Your task to perform on an android device: Do I have any events tomorrow? Image 0: 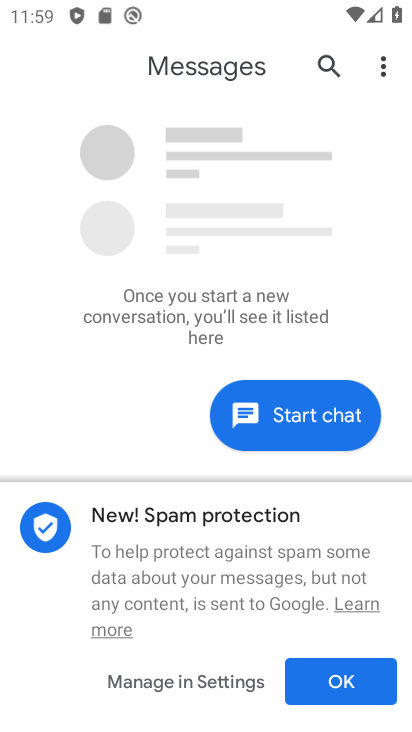
Step 0: press home button
Your task to perform on an android device: Do I have any events tomorrow? Image 1: 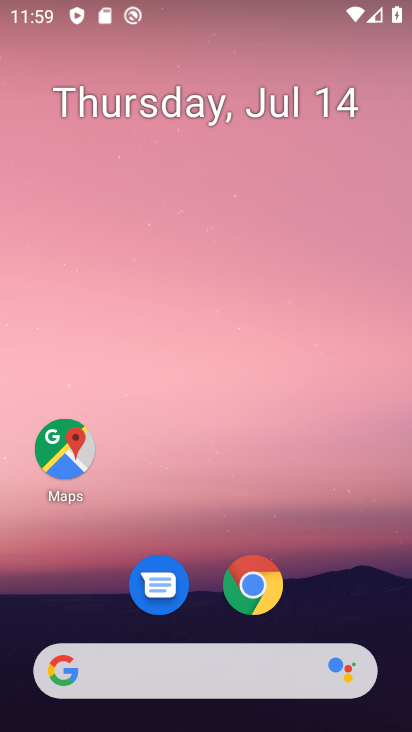
Step 1: drag from (278, 511) to (318, 99)
Your task to perform on an android device: Do I have any events tomorrow? Image 2: 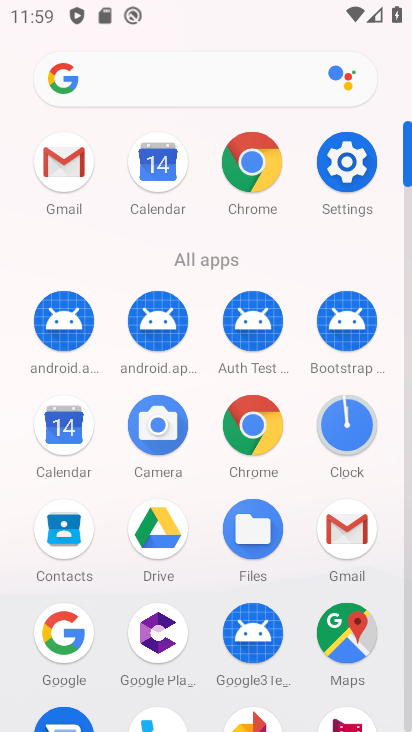
Step 2: click (58, 431)
Your task to perform on an android device: Do I have any events tomorrow? Image 3: 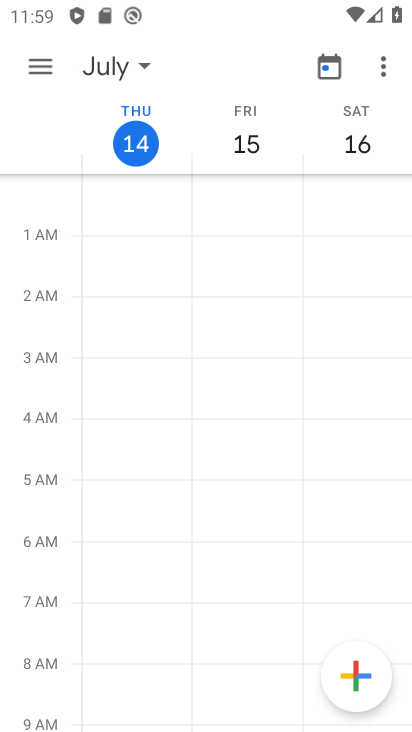
Step 3: task complete